Your task to perform on an android device: turn on sleep mode Image 0: 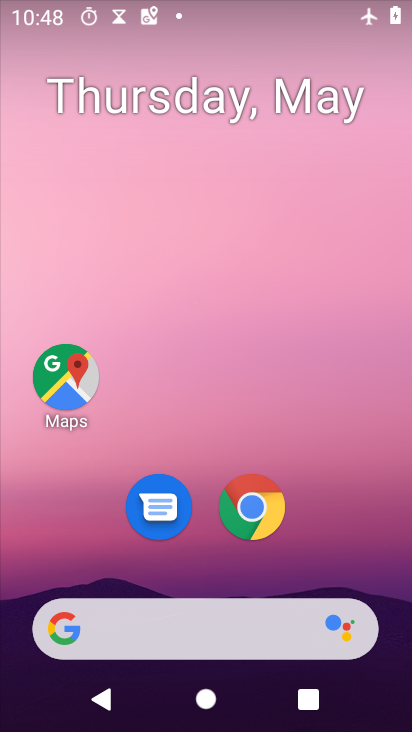
Step 0: drag from (348, 541) to (241, 0)
Your task to perform on an android device: turn on sleep mode Image 1: 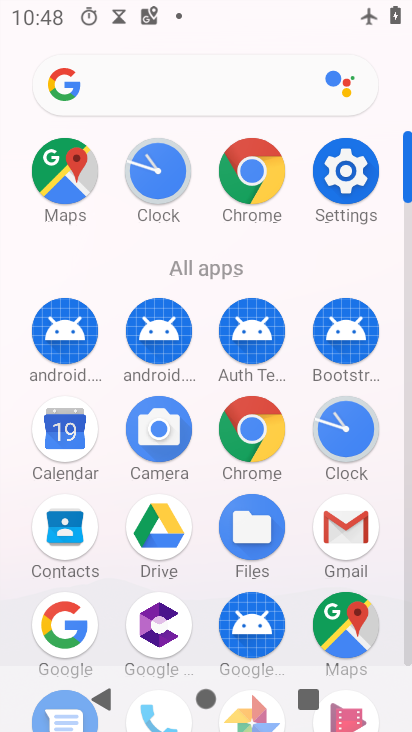
Step 1: drag from (11, 617) to (1, 319)
Your task to perform on an android device: turn on sleep mode Image 2: 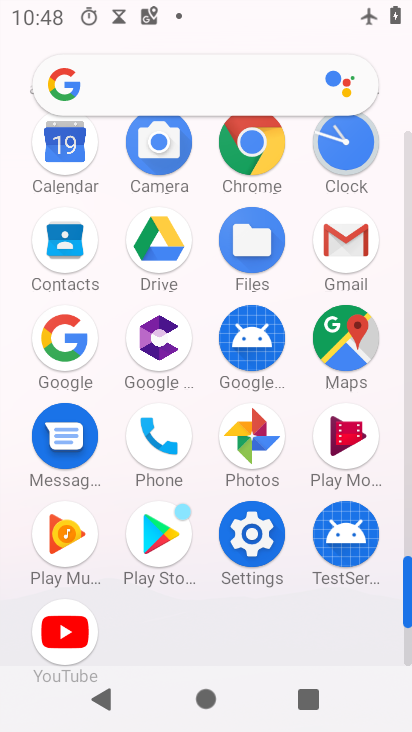
Step 2: drag from (6, 594) to (1, 330)
Your task to perform on an android device: turn on sleep mode Image 3: 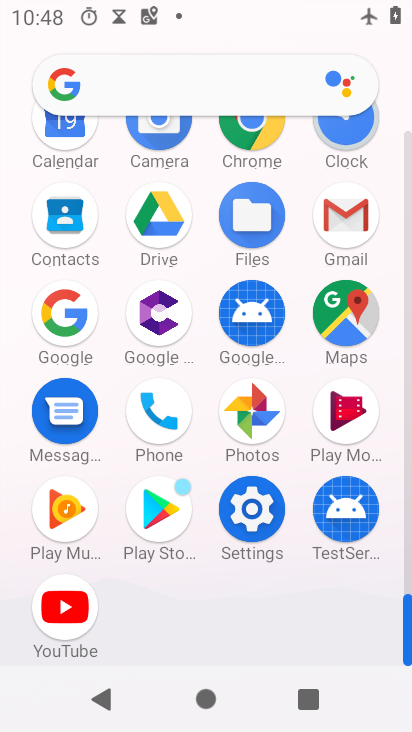
Step 3: click (248, 484)
Your task to perform on an android device: turn on sleep mode Image 4: 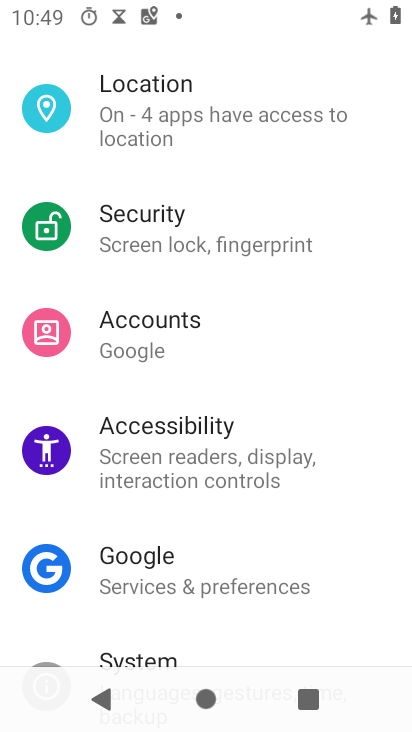
Step 4: drag from (267, 132) to (204, 560)
Your task to perform on an android device: turn on sleep mode Image 5: 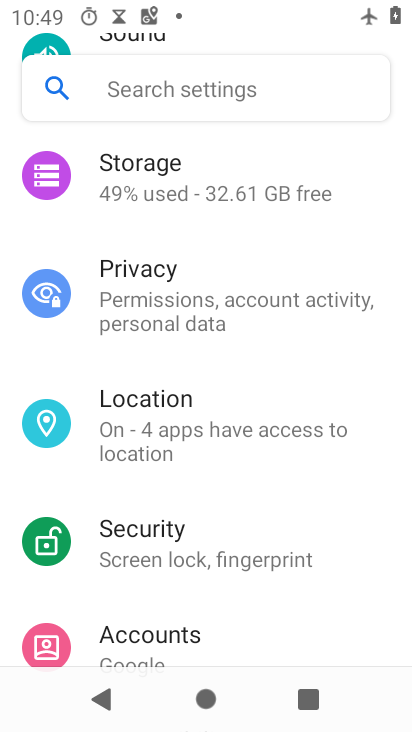
Step 5: drag from (236, 208) to (261, 615)
Your task to perform on an android device: turn on sleep mode Image 6: 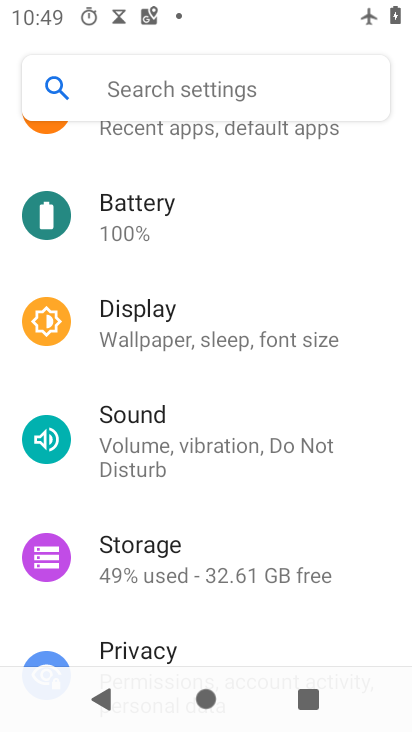
Step 6: drag from (235, 226) to (240, 615)
Your task to perform on an android device: turn on sleep mode Image 7: 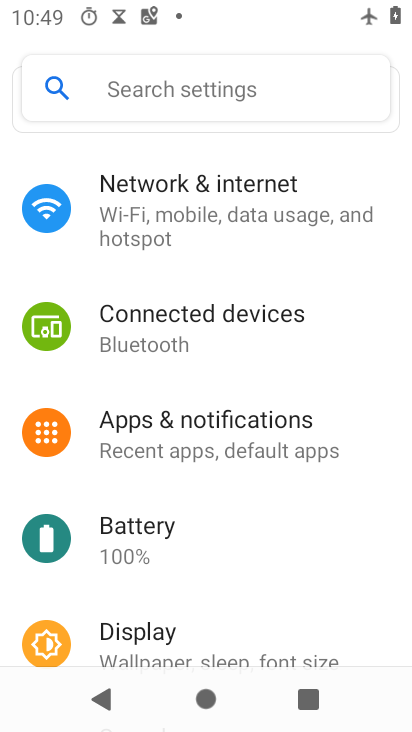
Step 7: drag from (235, 174) to (267, 476)
Your task to perform on an android device: turn on sleep mode Image 8: 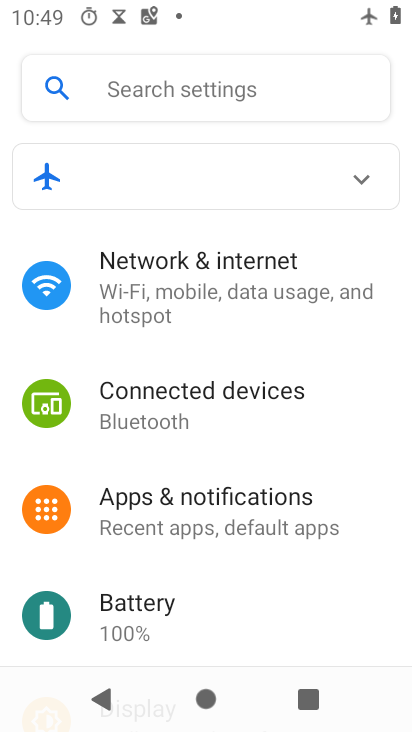
Step 8: click (215, 255)
Your task to perform on an android device: turn on sleep mode Image 9: 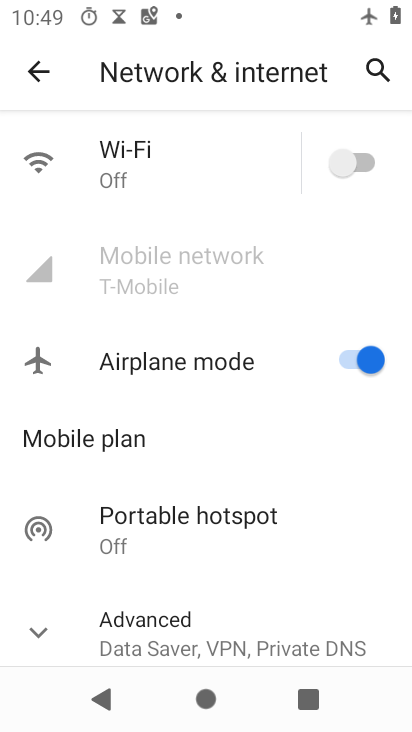
Step 9: click (51, 623)
Your task to perform on an android device: turn on sleep mode Image 10: 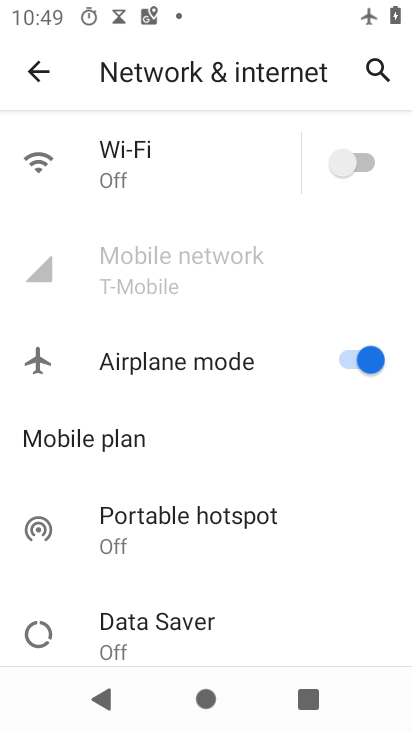
Step 10: task complete